Your task to perform on an android device: uninstall "Google Play Music" Image 0: 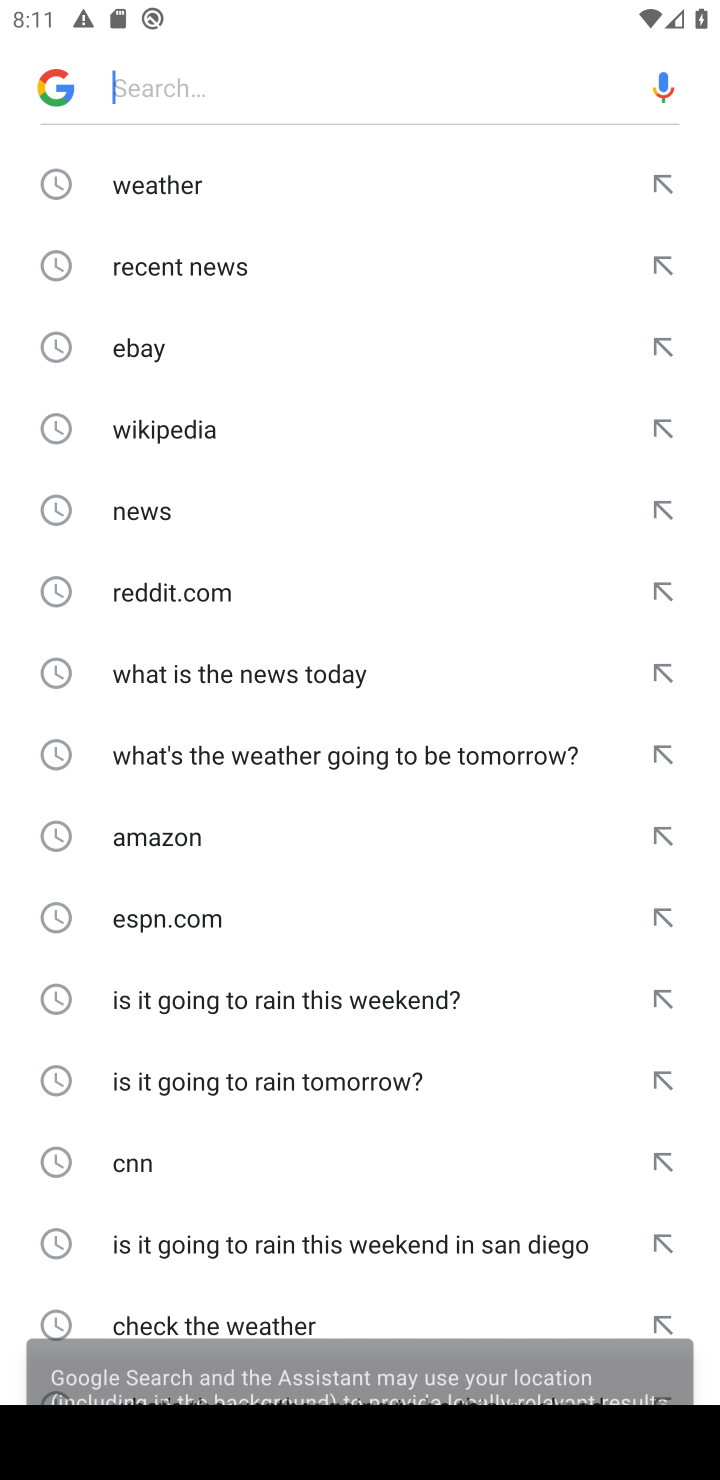
Step 0: press home button
Your task to perform on an android device: uninstall "Google Play Music" Image 1: 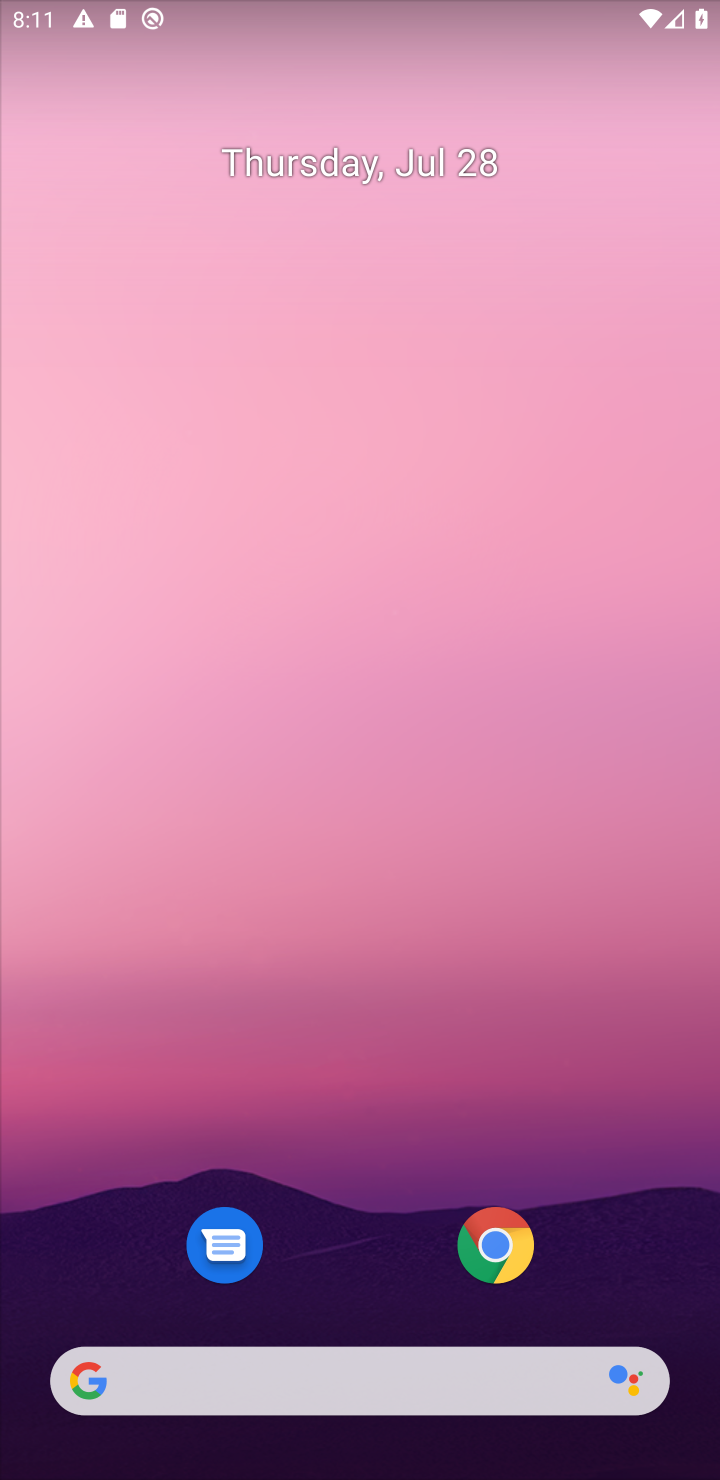
Step 1: drag from (299, 304) to (299, 238)
Your task to perform on an android device: uninstall "Google Play Music" Image 2: 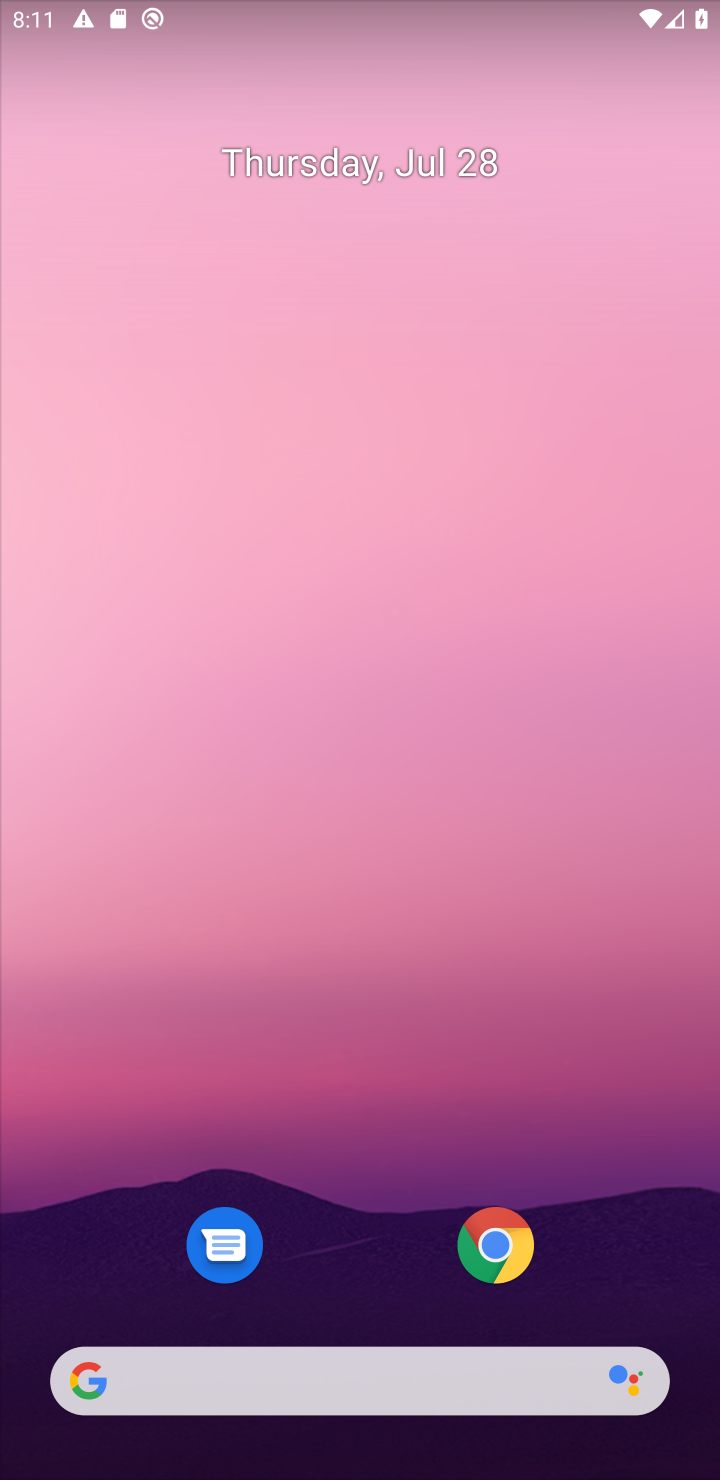
Step 2: drag from (374, 1112) to (416, 0)
Your task to perform on an android device: uninstall "Google Play Music" Image 3: 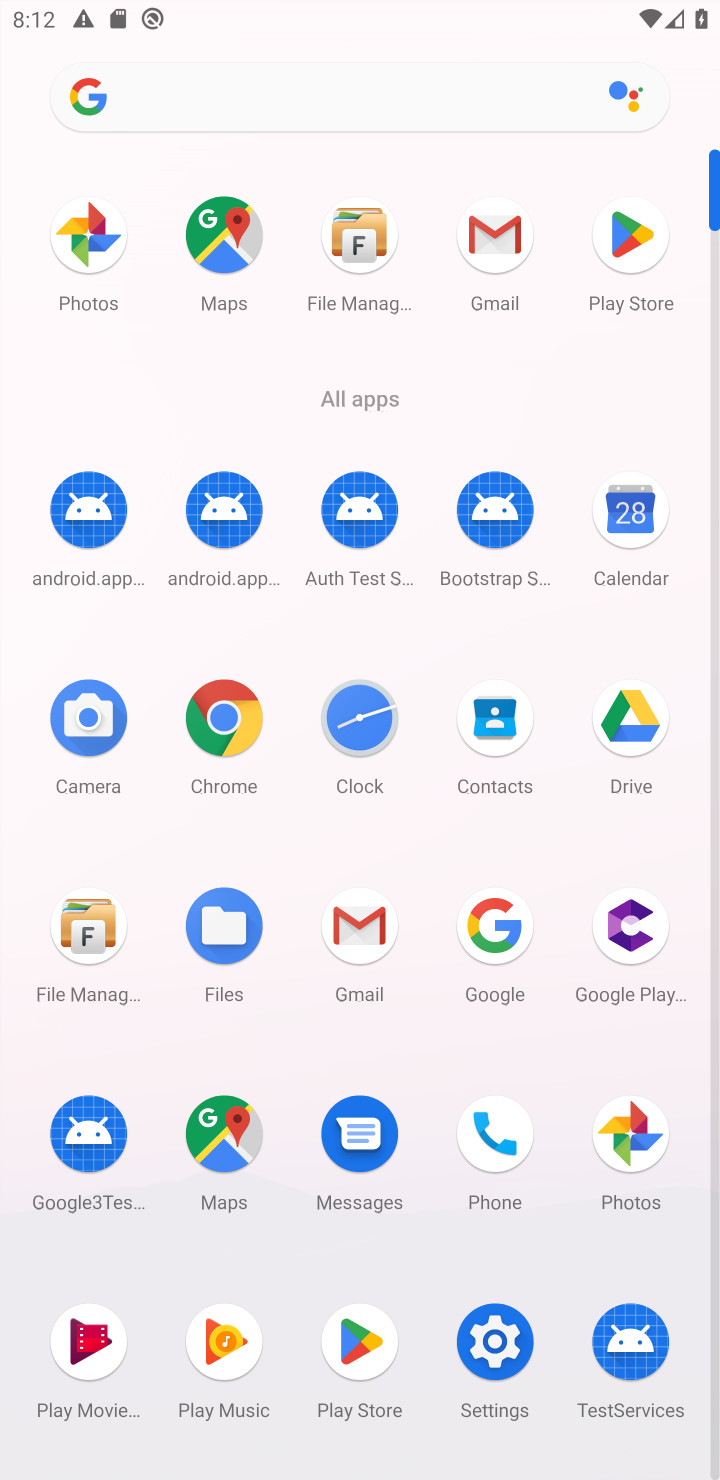
Step 3: click (630, 248)
Your task to perform on an android device: uninstall "Google Play Music" Image 4: 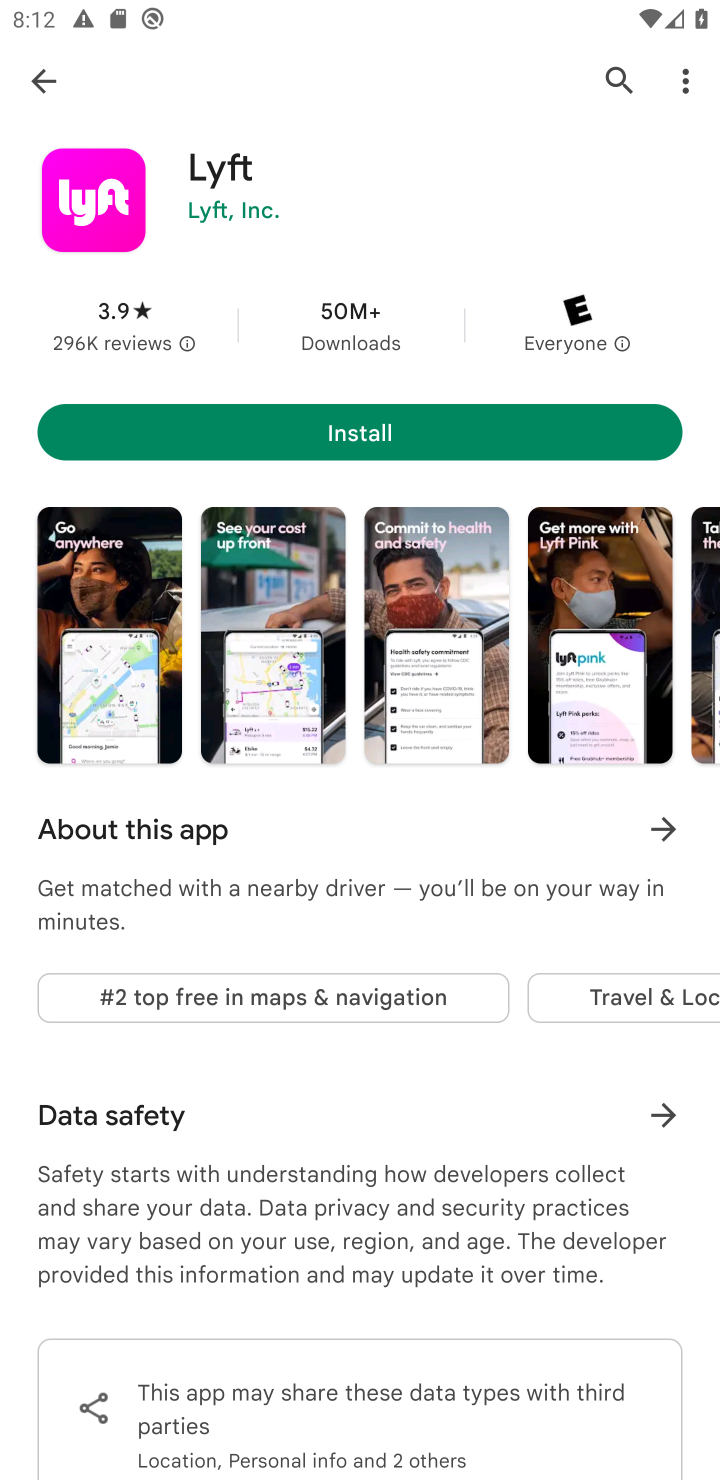
Step 4: click (626, 78)
Your task to perform on an android device: uninstall "Google Play Music" Image 5: 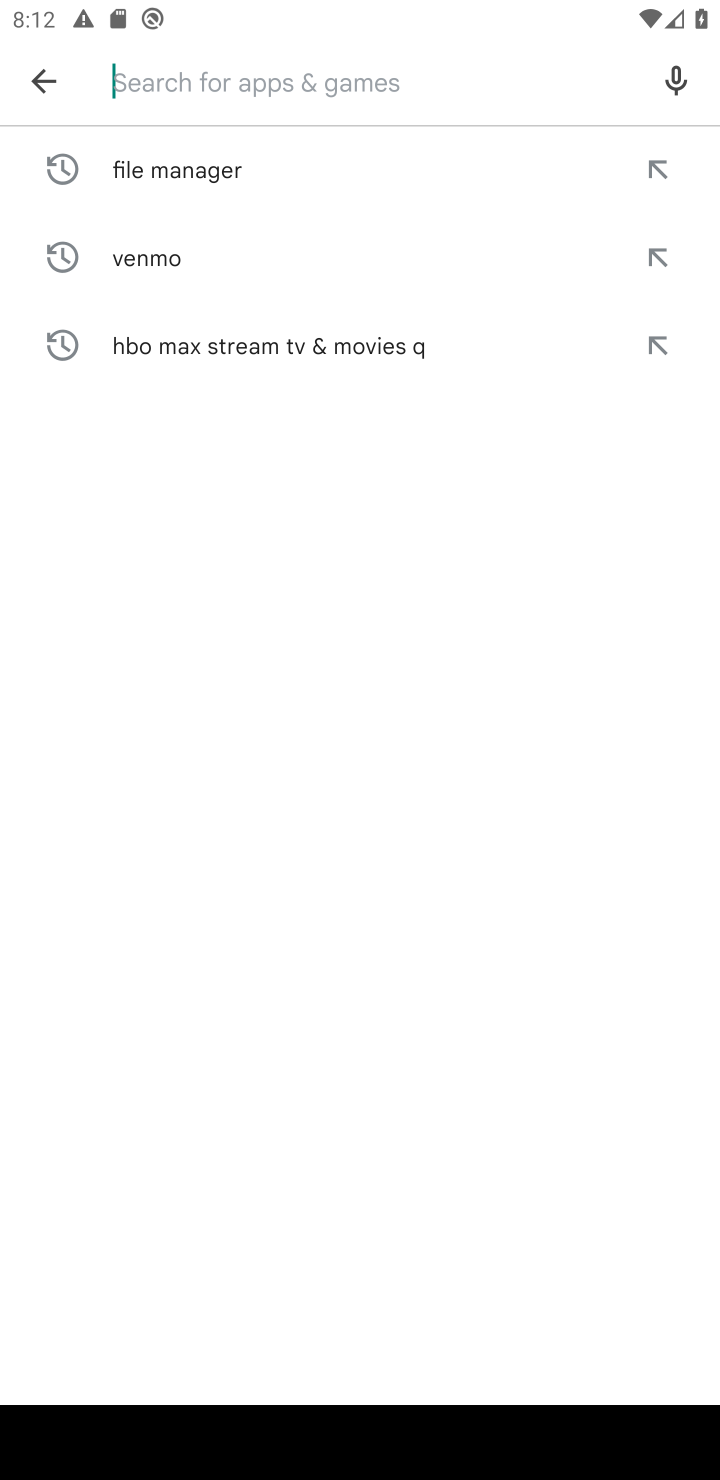
Step 5: type "google play music"
Your task to perform on an android device: uninstall "Google Play Music" Image 6: 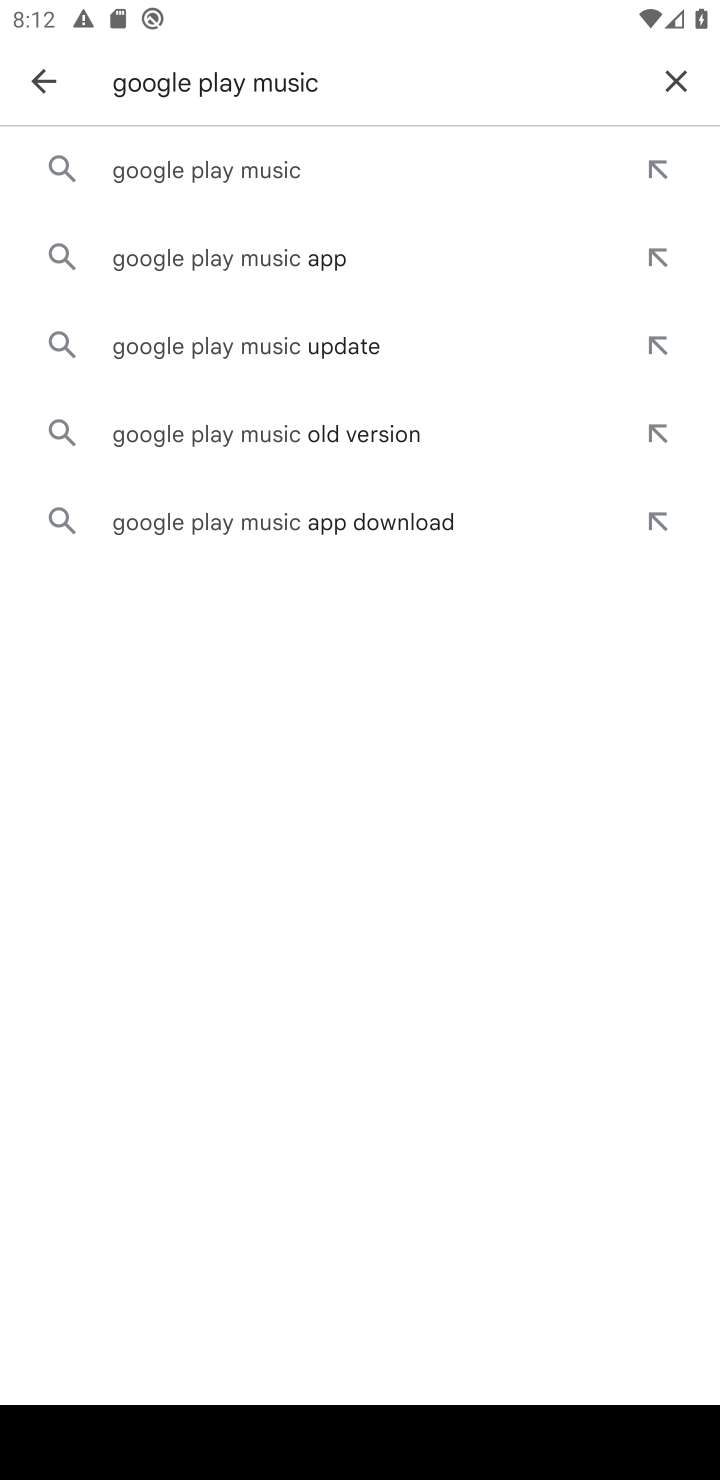
Step 6: click (165, 159)
Your task to perform on an android device: uninstall "Google Play Music" Image 7: 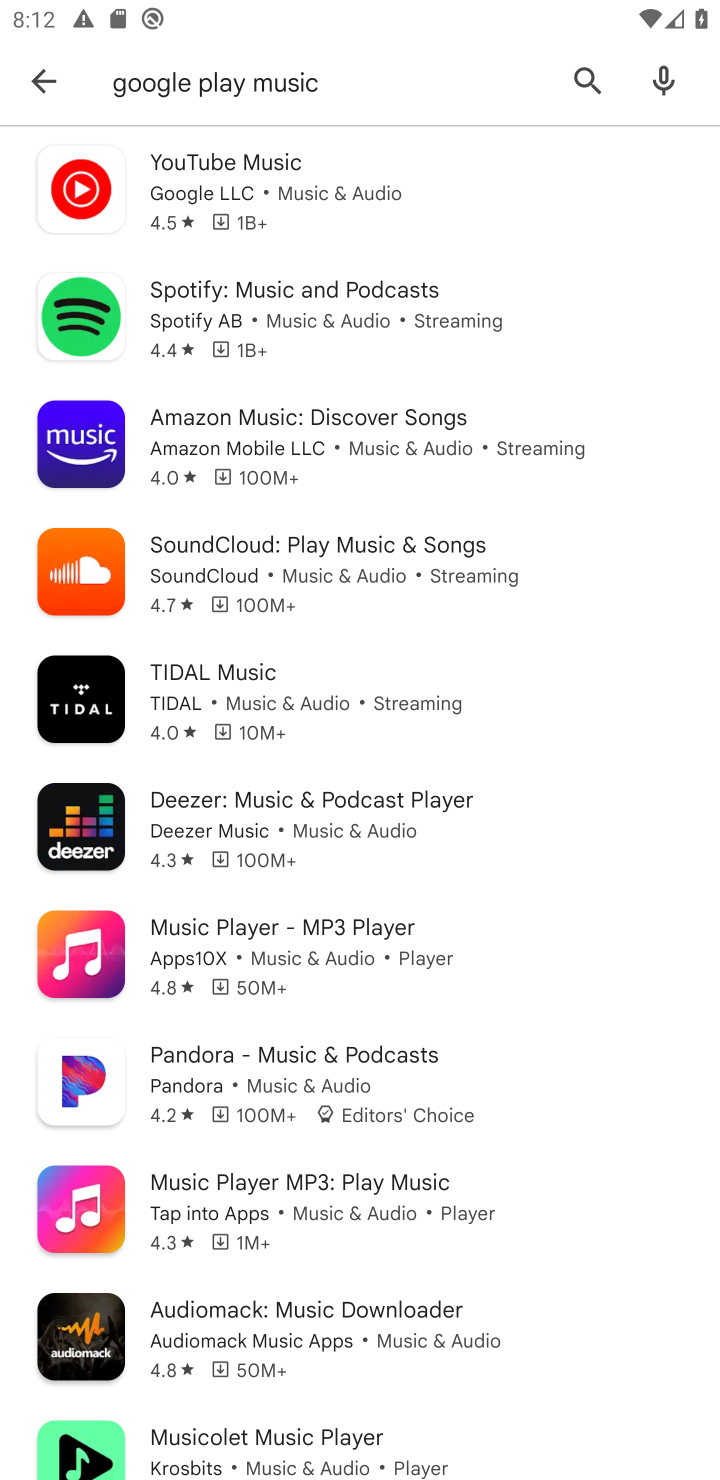
Step 7: task complete